Your task to perform on an android device: check out phone information Image 0: 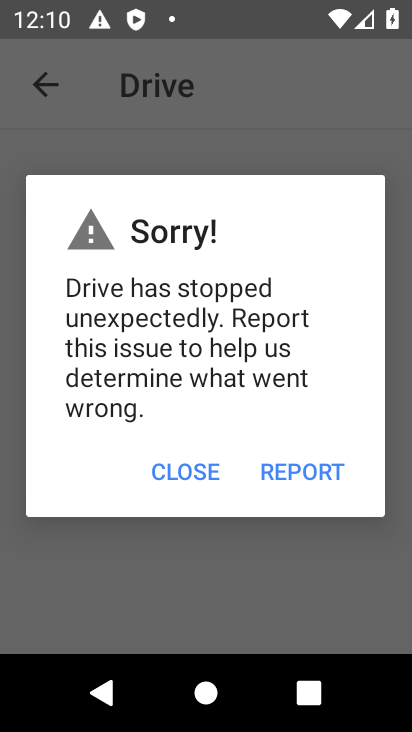
Step 0: press home button
Your task to perform on an android device: check out phone information Image 1: 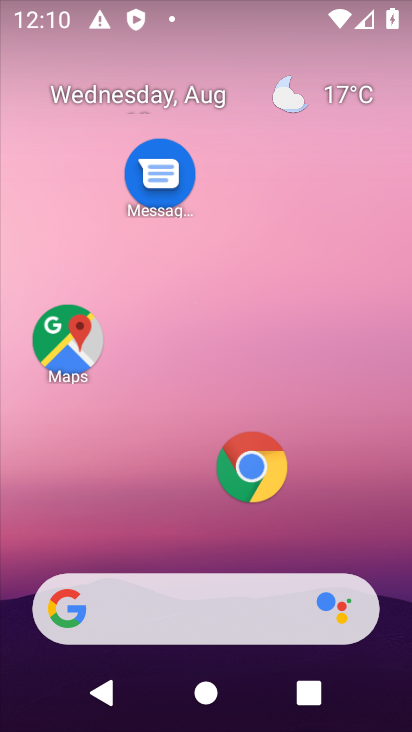
Step 1: drag from (203, 541) to (209, 86)
Your task to perform on an android device: check out phone information Image 2: 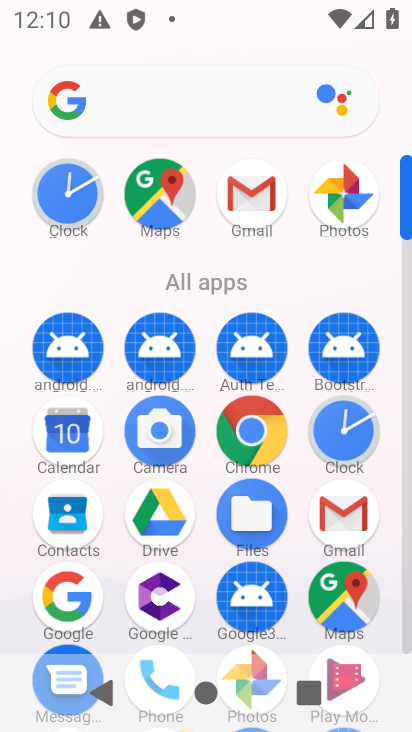
Step 2: drag from (196, 628) to (244, 343)
Your task to perform on an android device: check out phone information Image 3: 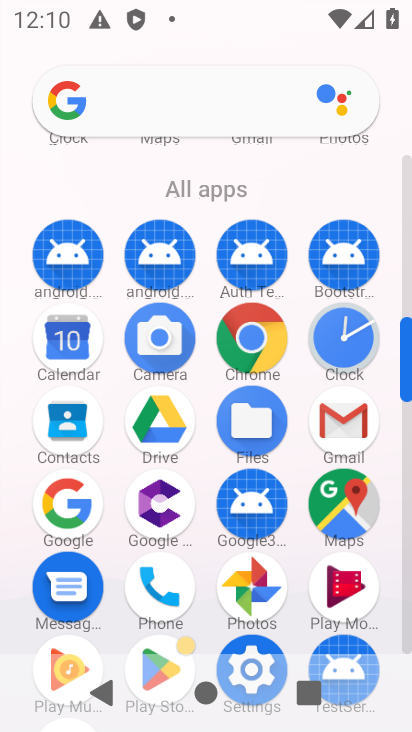
Step 3: click (244, 302)
Your task to perform on an android device: check out phone information Image 4: 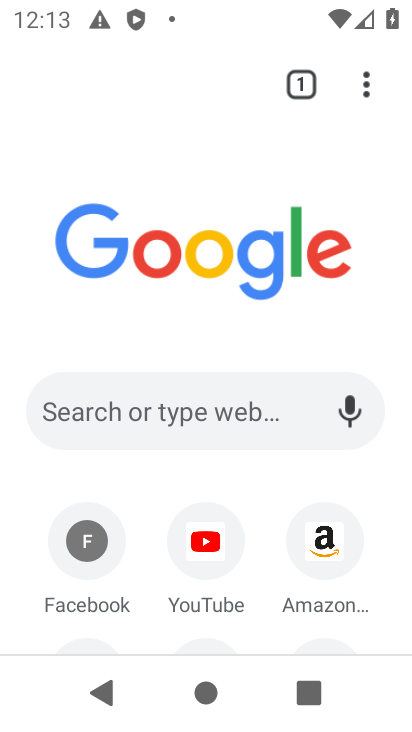
Step 4: press home button
Your task to perform on an android device: check out phone information Image 5: 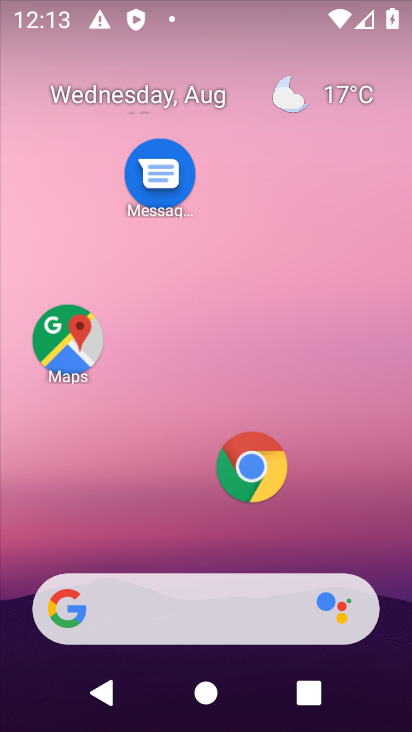
Step 5: drag from (116, 514) to (206, 3)
Your task to perform on an android device: check out phone information Image 6: 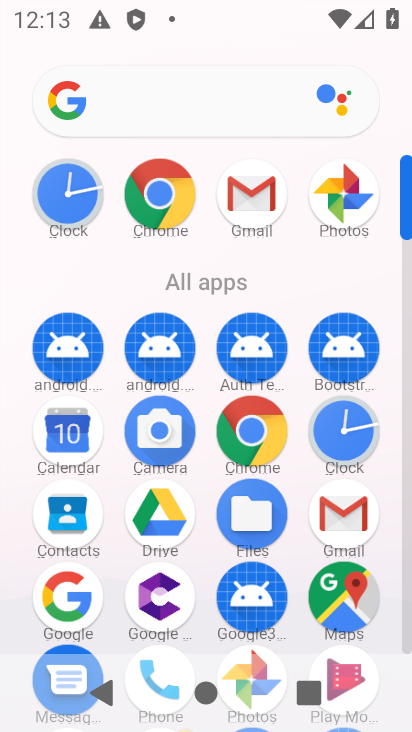
Step 6: drag from (200, 614) to (256, 63)
Your task to perform on an android device: check out phone information Image 7: 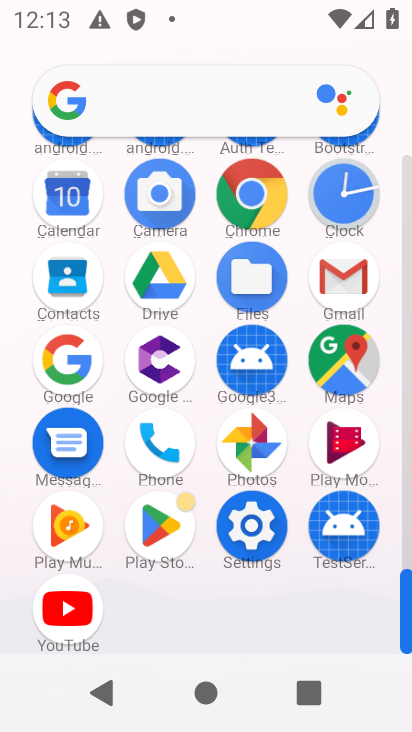
Step 7: click (266, 545)
Your task to perform on an android device: check out phone information Image 8: 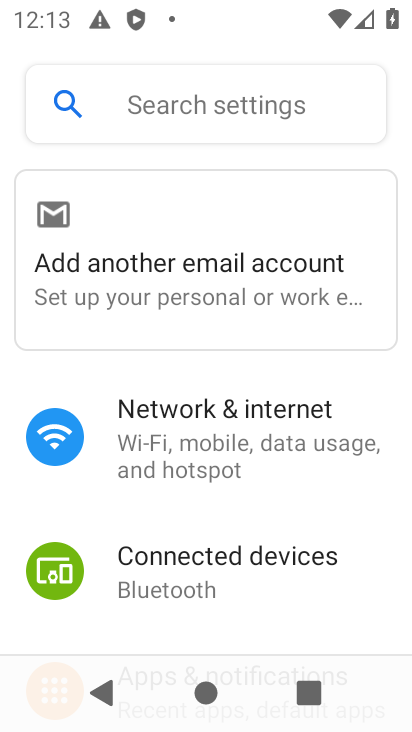
Step 8: drag from (266, 545) to (202, 133)
Your task to perform on an android device: check out phone information Image 9: 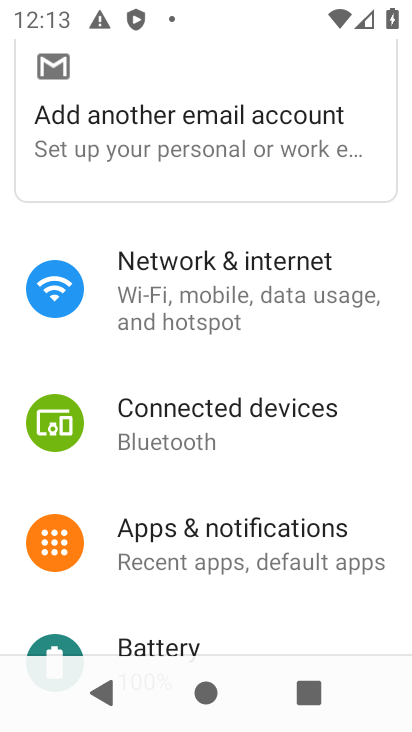
Step 9: drag from (231, 616) to (266, 169)
Your task to perform on an android device: check out phone information Image 10: 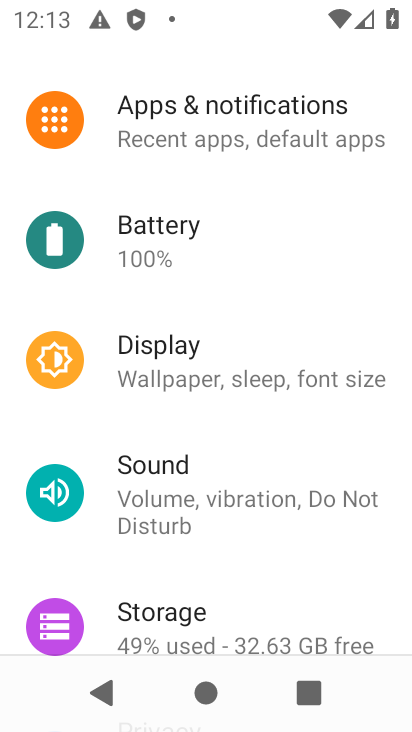
Step 10: drag from (220, 552) to (301, 84)
Your task to perform on an android device: check out phone information Image 11: 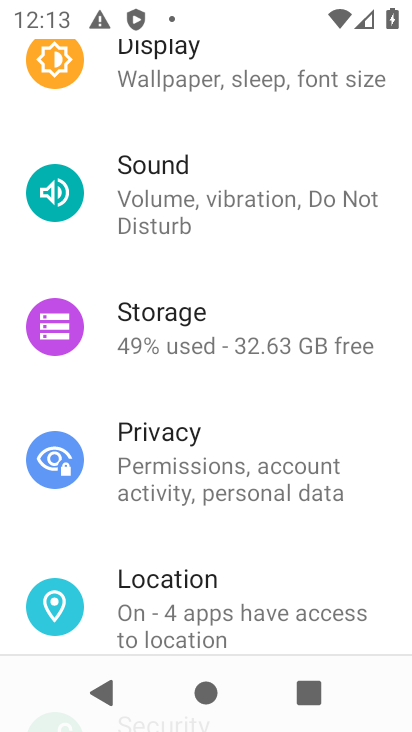
Step 11: drag from (165, 556) to (167, 159)
Your task to perform on an android device: check out phone information Image 12: 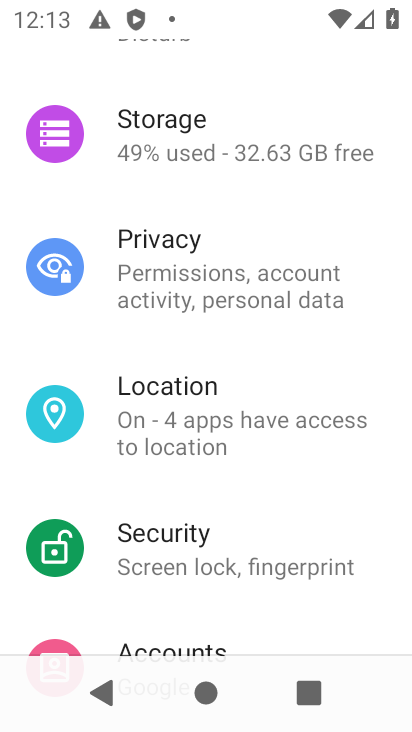
Step 12: drag from (172, 509) to (153, 119)
Your task to perform on an android device: check out phone information Image 13: 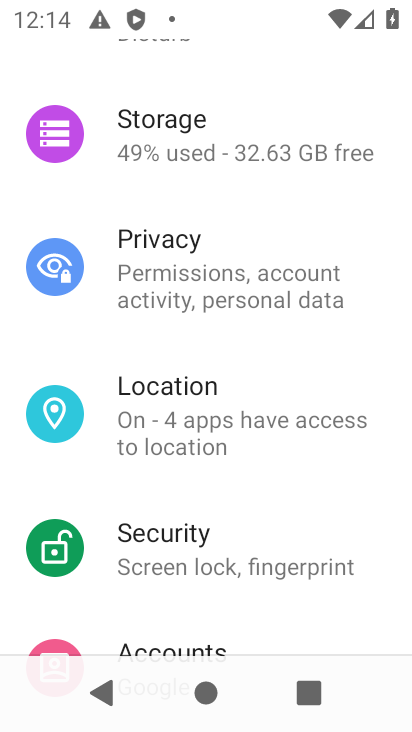
Step 13: drag from (211, 589) to (271, 89)
Your task to perform on an android device: check out phone information Image 14: 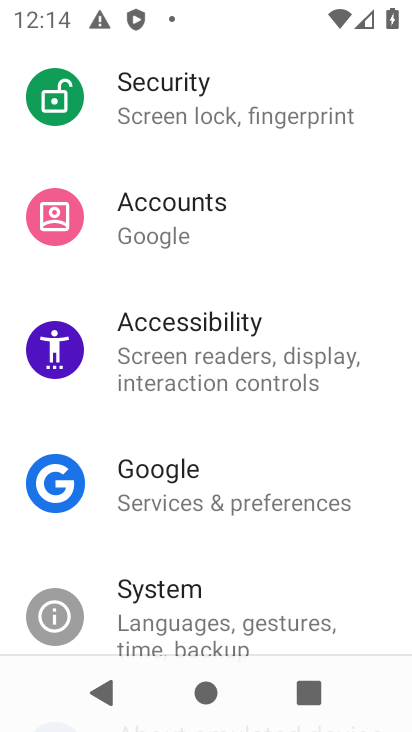
Step 14: drag from (212, 605) to (190, 60)
Your task to perform on an android device: check out phone information Image 15: 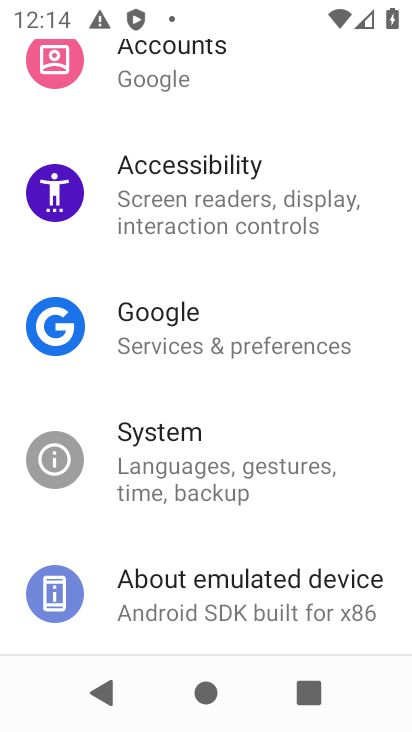
Step 15: click (150, 584)
Your task to perform on an android device: check out phone information Image 16: 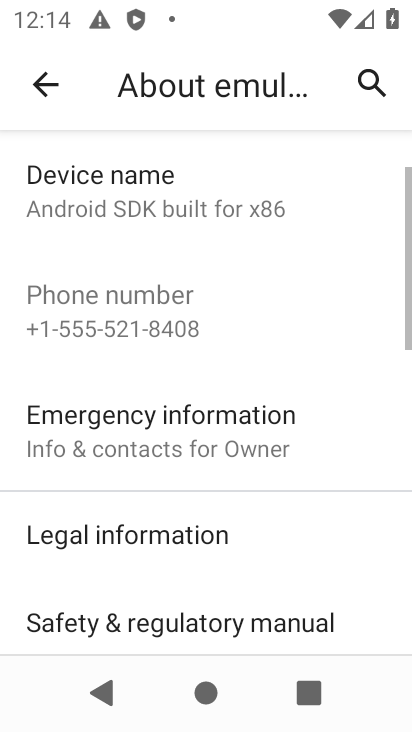
Step 16: task complete